Your task to perform on an android device: allow cookies in the chrome app Image 0: 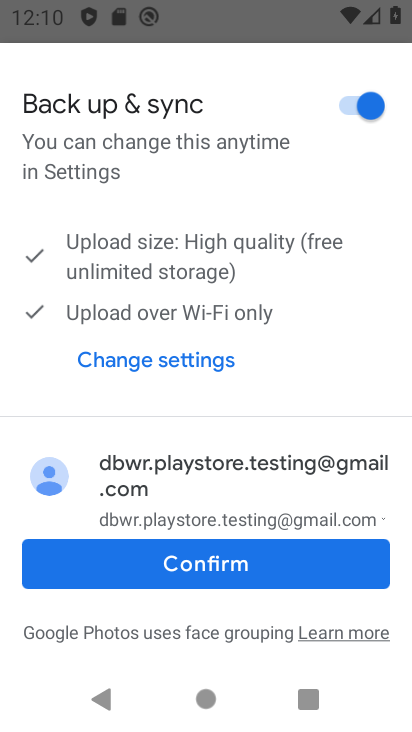
Step 0: press home button
Your task to perform on an android device: allow cookies in the chrome app Image 1: 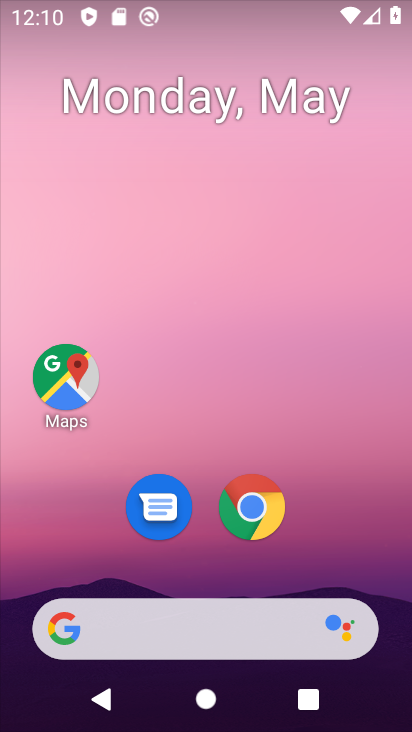
Step 1: click (261, 515)
Your task to perform on an android device: allow cookies in the chrome app Image 2: 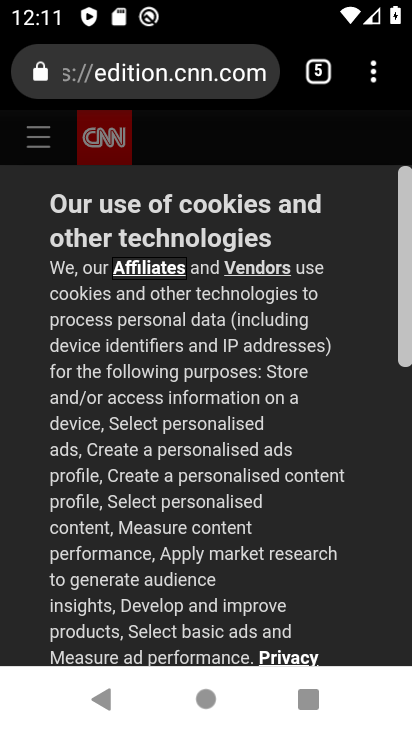
Step 2: click (373, 81)
Your task to perform on an android device: allow cookies in the chrome app Image 3: 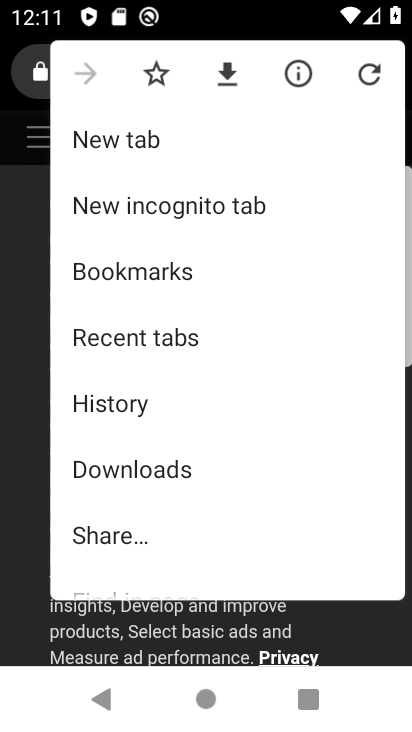
Step 3: drag from (146, 549) to (136, 81)
Your task to perform on an android device: allow cookies in the chrome app Image 4: 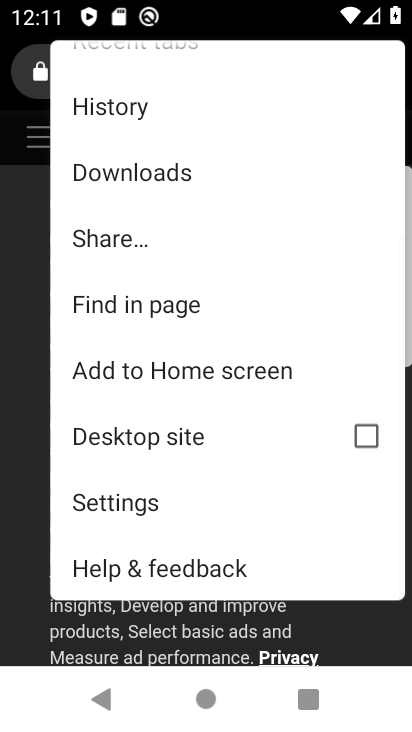
Step 4: click (114, 502)
Your task to perform on an android device: allow cookies in the chrome app Image 5: 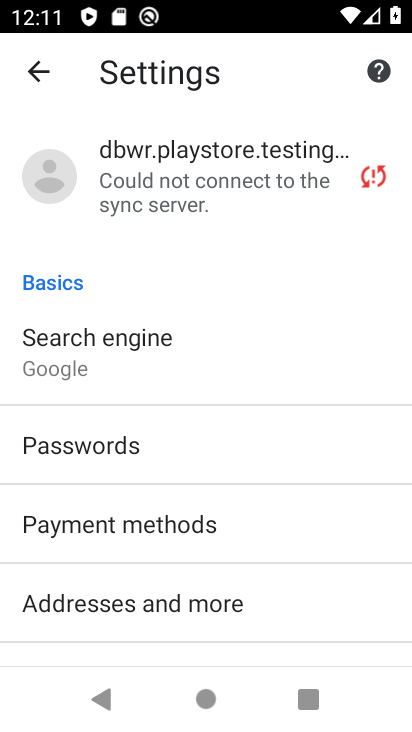
Step 5: drag from (130, 632) to (130, 219)
Your task to perform on an android device: allow cookies in the chrome app Image 6: 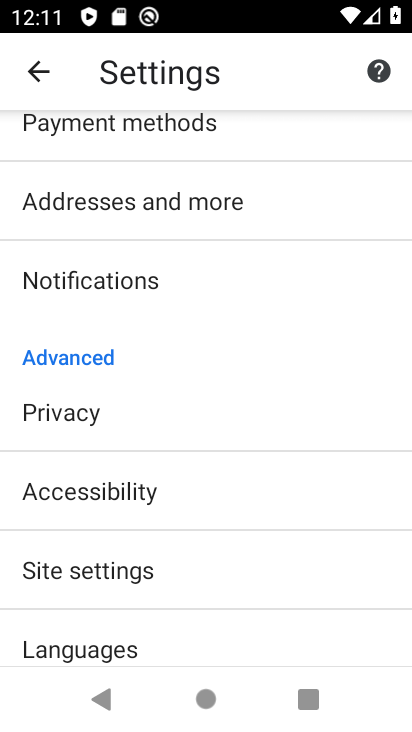
Step 6: click (102, 570)
Your task to perform on an android device: allow cookies in the chrome app Image 7: 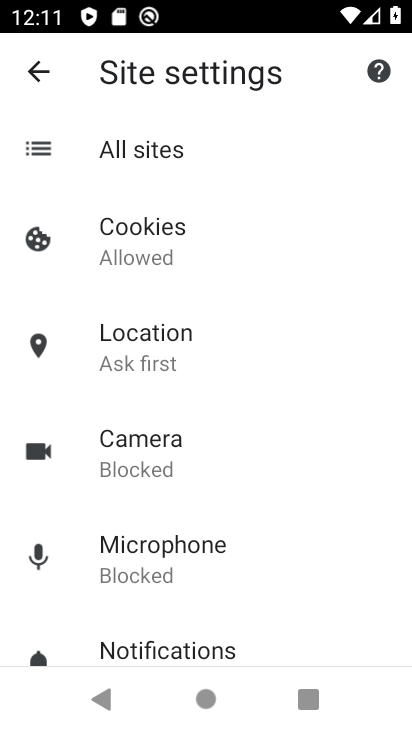
Step 7: click (145, 235)
Your task to perform on an android device: allow cookies in the chrome app Image 8: 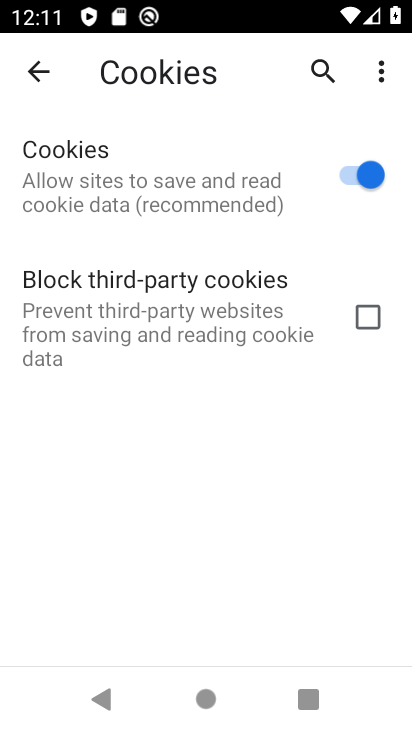
Step 8: task complete